Your task to perform on an android device: Open Google Chrome and click the shortcut for Amazon.com Image 0: 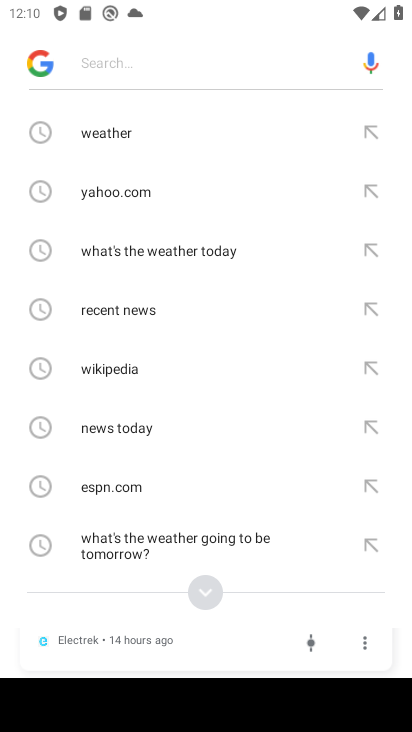
Step 0: press back button
Your task to perform on an android device: Open Google Chrome and click the shortcut for Amazon.com Image 1: 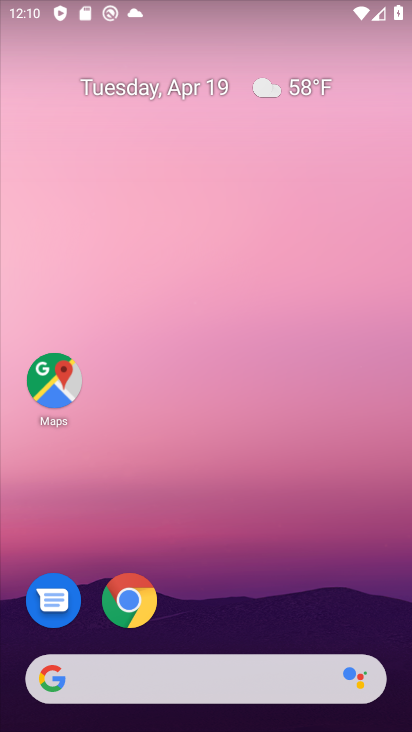
Step 1: drag from (268, 612) to (290, 1)
Your task to perform on an android device: Open Google Chrome and click the shortcut for Amazon.com Image 2: 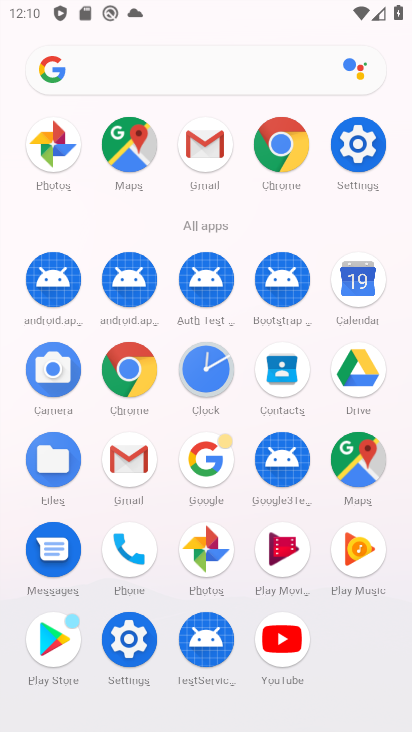
Step 2: click (279, 142)
Your task to perform on an android device: Open Google Chrome and click the shortcut for Amazon.com Image 3: 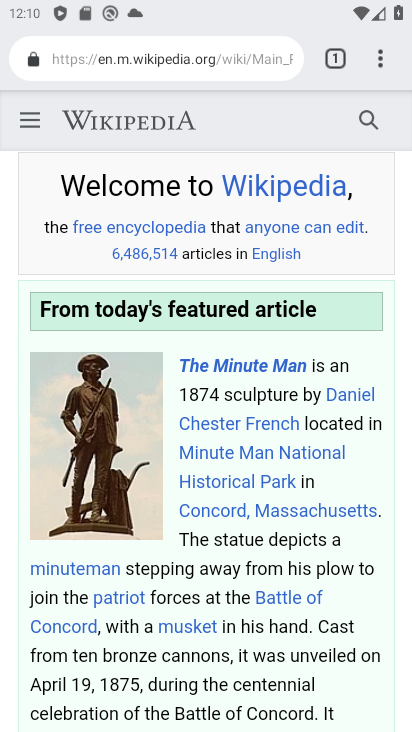
Step 3: click (335, 69)
Your task to perform on an android device: Open Google Chrome and click the shortcut for Amazon.com Image 4: 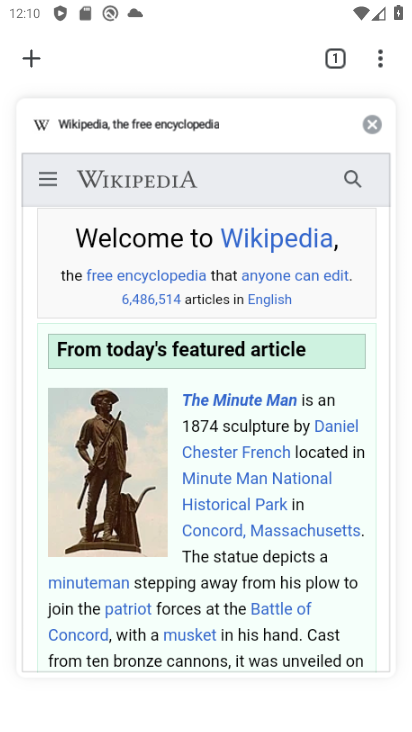
Step 4: click (31, 53)
Your task to perform on an android device: Open Google Chrome and click the shortcut for Amazon.com Image 5: 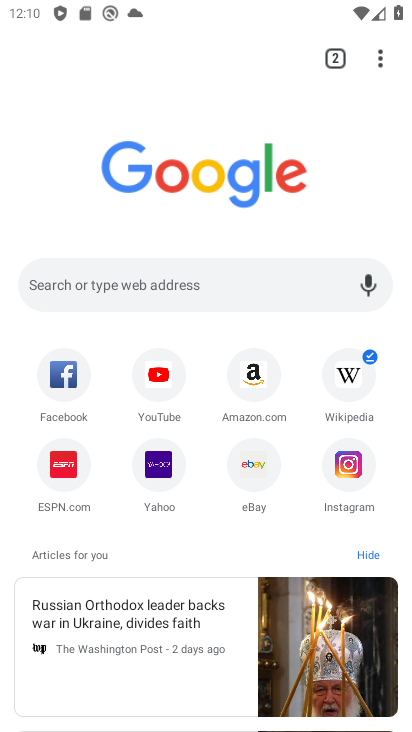
Step 5: click (267, 394)
Your task to perform on an android device: Open Google Chrome and click the shortcut for Amazon.com Image 6: 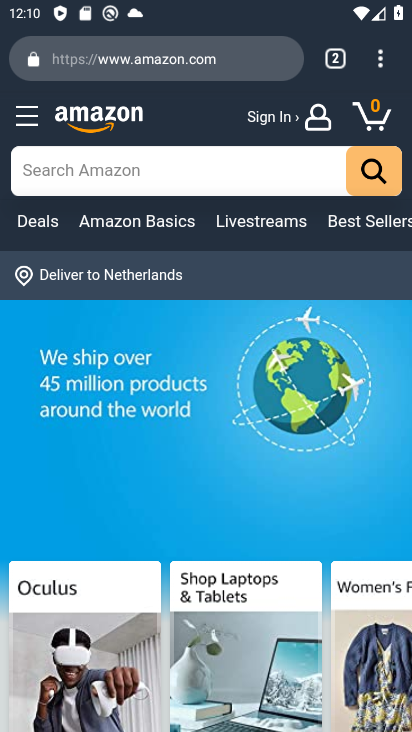
Step 6: task complete